Your task to perform on an android device: Go to display settings Image 0: 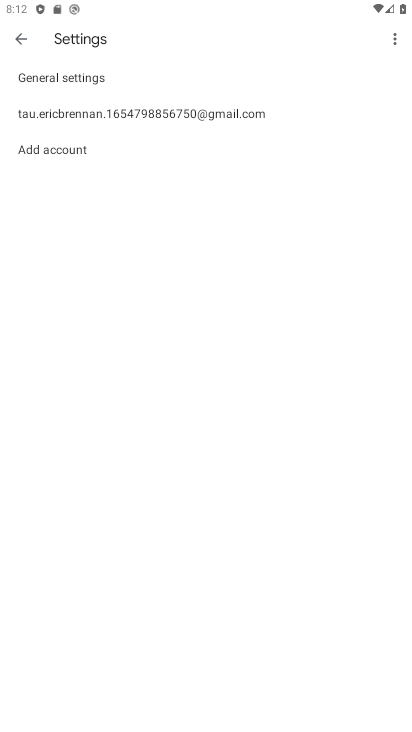
Step 0: press home button
Your task to perform on an android device: Go to display settings Image 1: 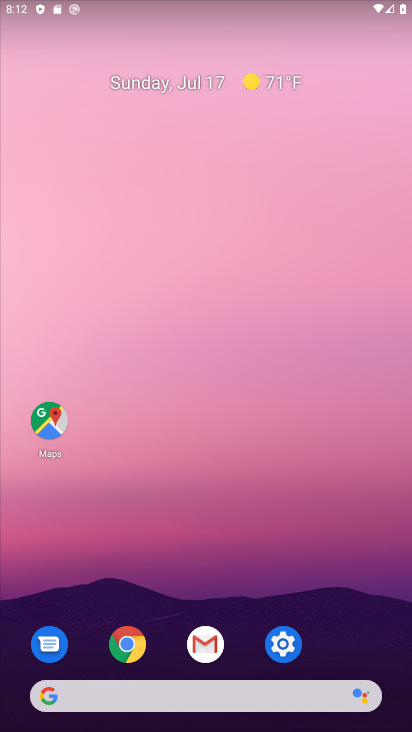
Step 1: click (287, 646)
Your task to perform on an android device: Go to display settings Image 2: 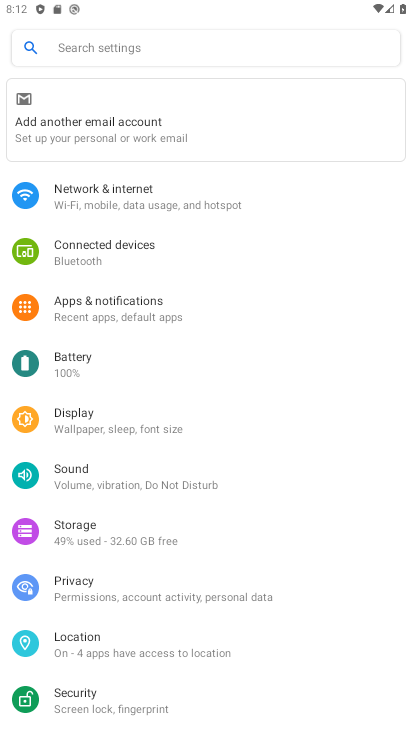
Step 2: click (71, 412)
Your task to perform on an android device: Go to display settings Image 3: 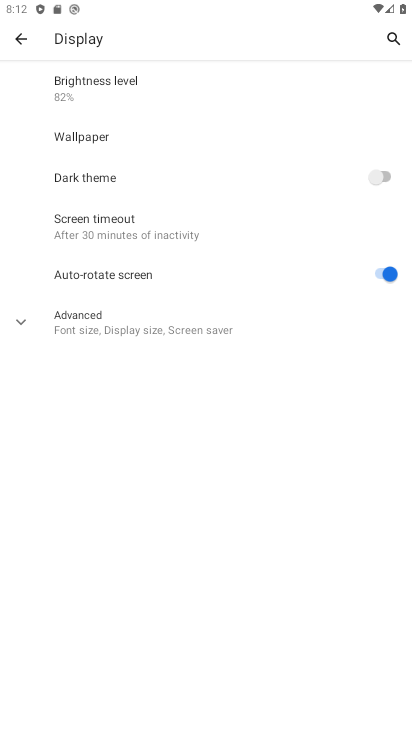
Step 3: task complete